Your task to perform on an android device: turn on wifi Image 0: 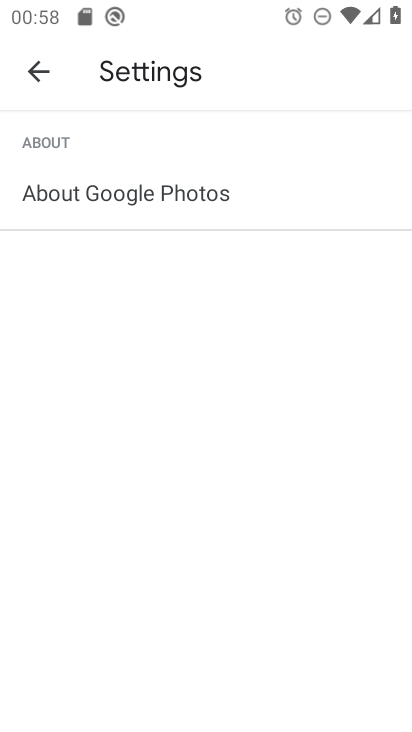
Step 0: press home button
Your task to perform on an android device: turn on wifi Image 1: 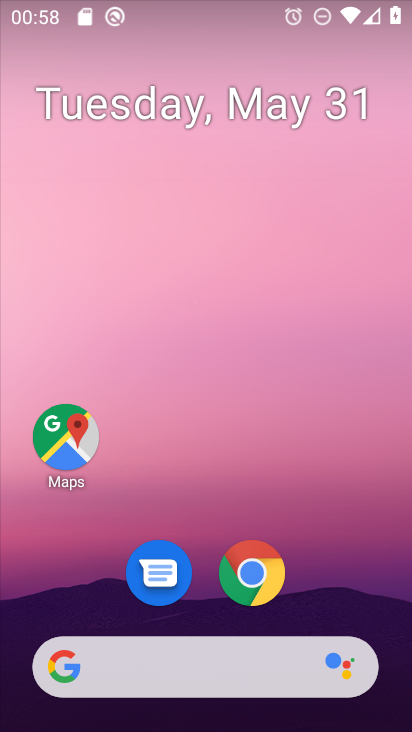
Step 1: drag from (267, 705) to (215, 22)
Your task to perform on an android device: turn on wifi Image 2: 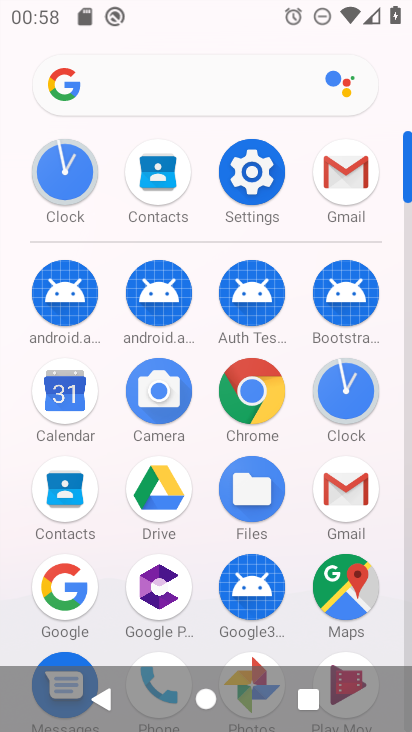
Step 2: click (241, 179)
Your task to perform on an android device: turn on wifi Image 3: 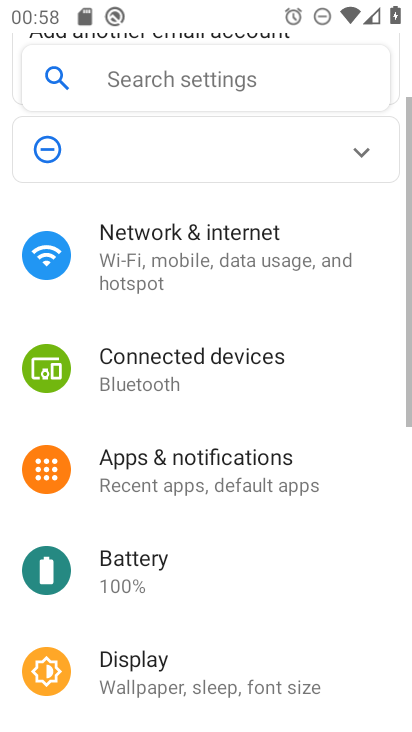
Step 3: drag from (297, 201) to (320, 689)
Your task to perform on an android device: turn on wifi Image 4: 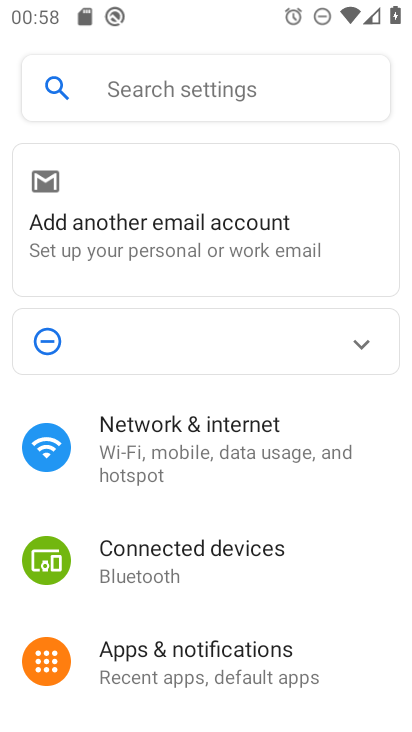
Step 4: click (222, 461)
Your task to perform on an android device: turn on wifi Image 5: 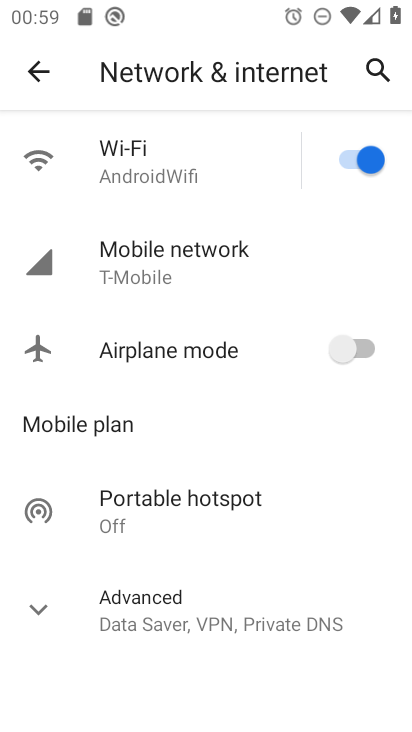
Step 5: task complete